Your task to perform on an android device: turn off smart reply in the gmail app Image 0: 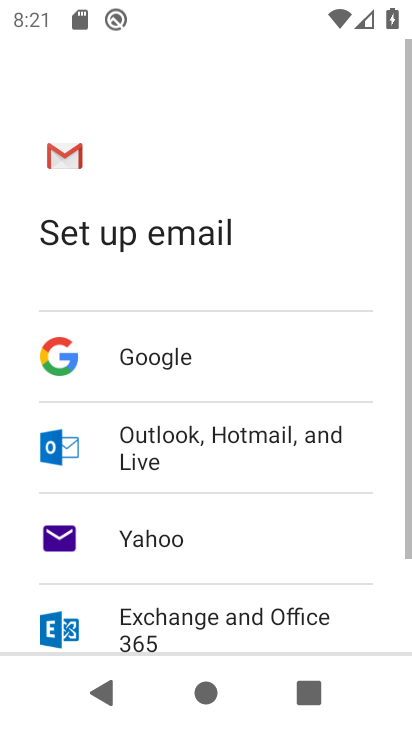
Step 0: press home button
Your task to perform on an android device: turn off smart reply in the gmail app Image 1: 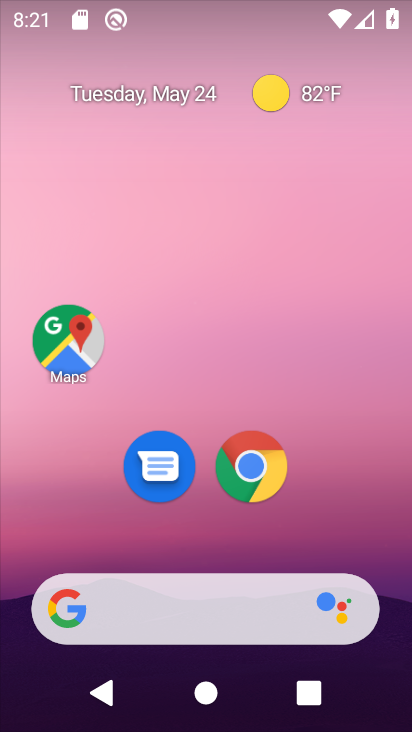
Step 1: drag from (225, 569) to (226, 157)
Your task to perform on an android device: turn off smart reply in the gmail app Image 2: 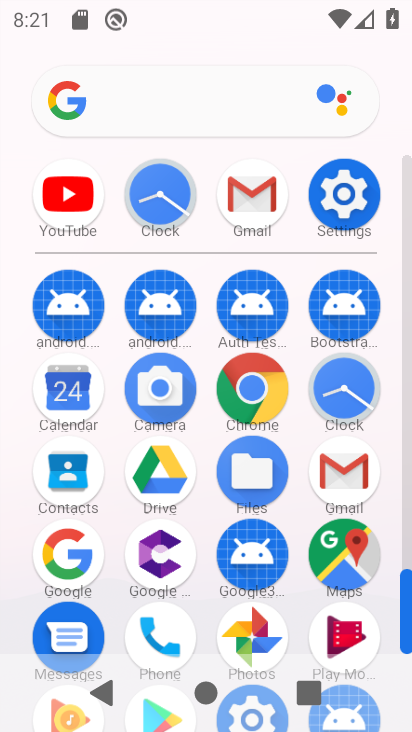
Step 2: click (255, 203)
Your task to perform on an android device: turn off smart reply in the gmail app Image 3: 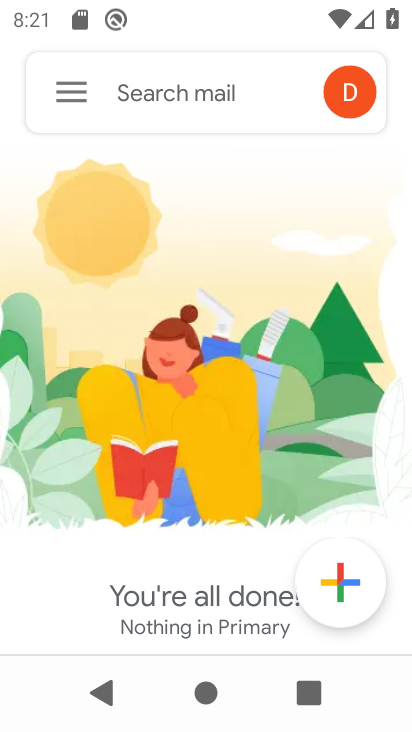
Step 3: click (72, 98)
Your task to perform on an android device: turn off smart reply in the gmail app Image 4: 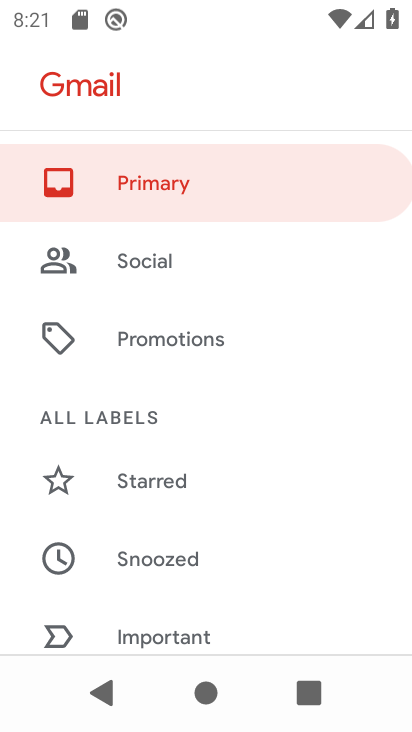
Step 4: drag from (160, 629) to (172, 245)
Your task to perform on an android device: turn off smart reply in the gmail app Image 5: 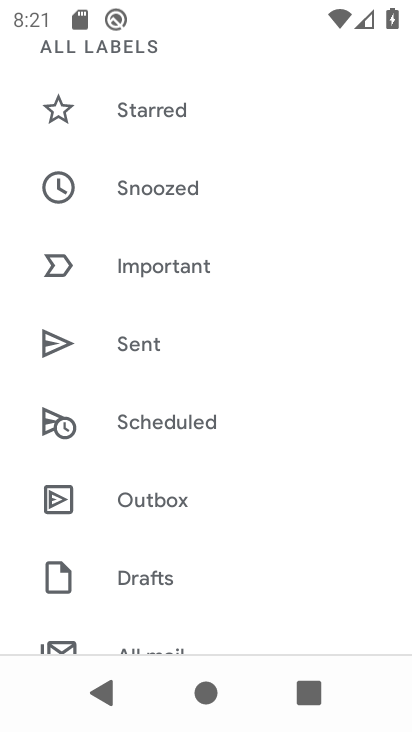
Step 5: drag from (167, 626) to (181, 318)
Your task to perform on an android device: turn off smart reply in the gmail app Image 6: 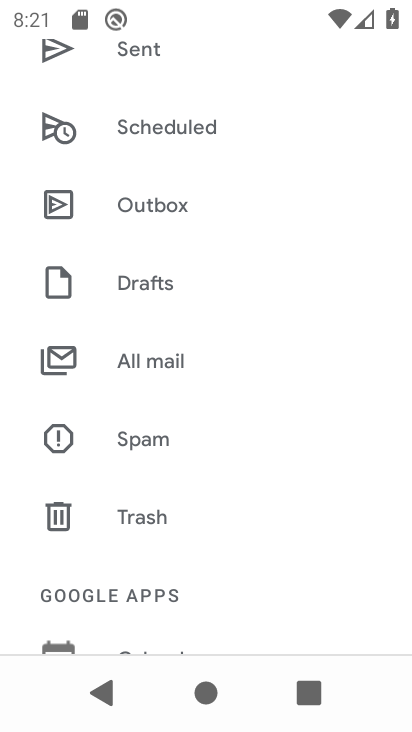
Step 6: drag from (158, 634) to (195, 289)
Your task to perform on an android device: turn off smart reply in the gmail app Image 7: 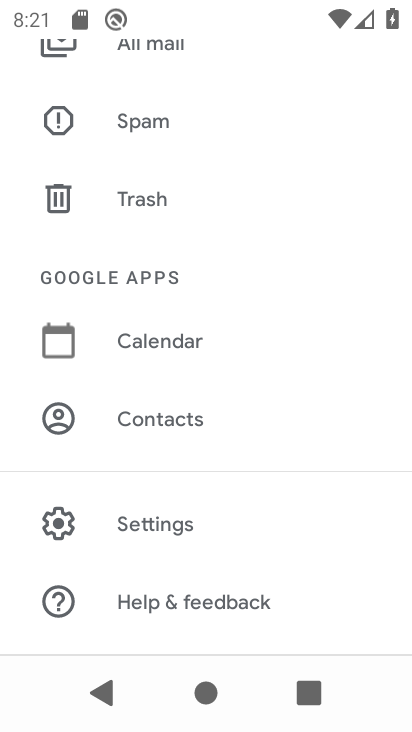
Step 7: click (162, 529)
Your task to perform on an android device: turn off smart reply in the gmail app Image 8: 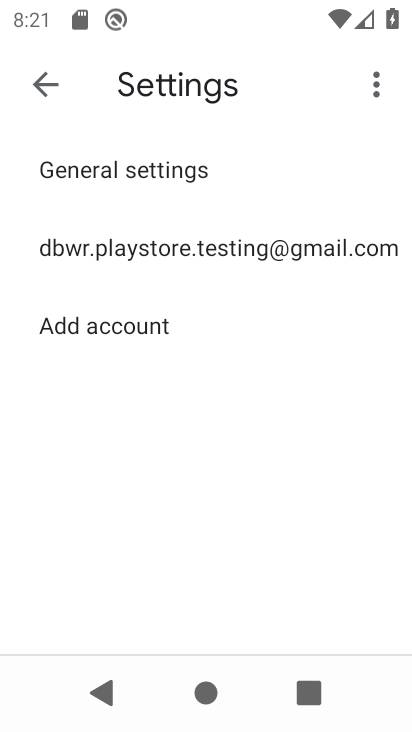
Step 8: click (129, 246)
Your task to perform on an android device: turn off smart reply in the gmail app Image 9: 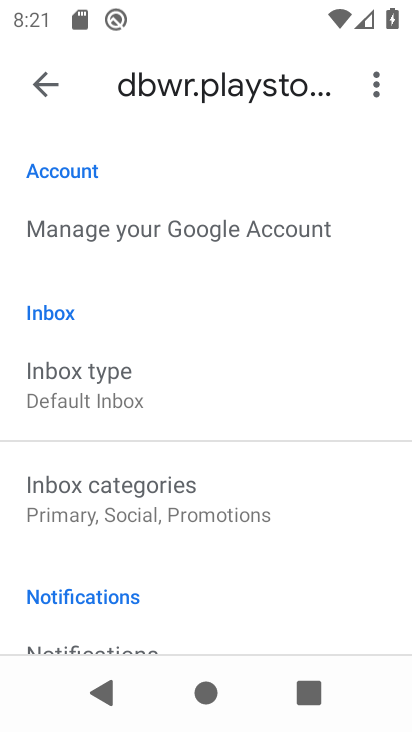
Step 9: drag from (190, 606) to (190, 290)
Your task to perform on an android device: turn off smart reply in the gmail app Image 10: 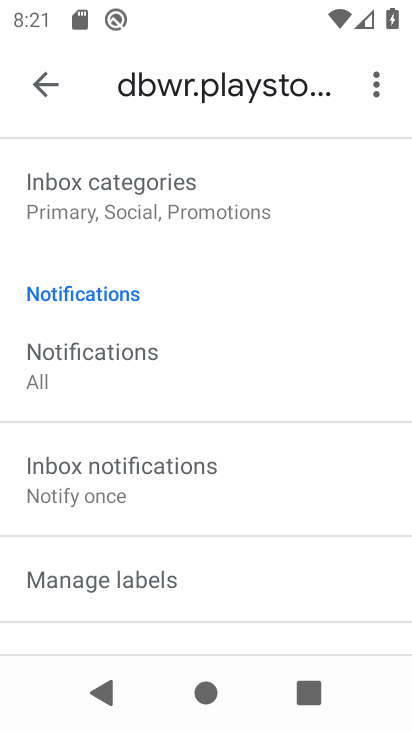
Step 10: drag from (194, 595) to (212, 314)
Your task to perform on an android device: turn off smart reply in the gmail app Image 11: 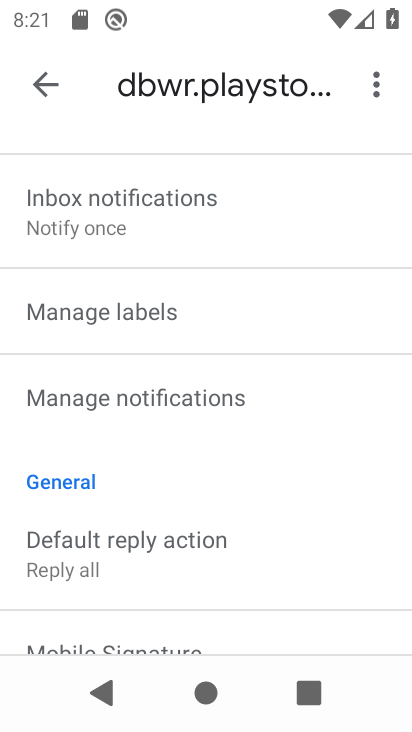
Step 11: drag from (202, 619) to (239, 269)
Your task to perform on an android device: turn off smart reply in the gmail app Image 12: 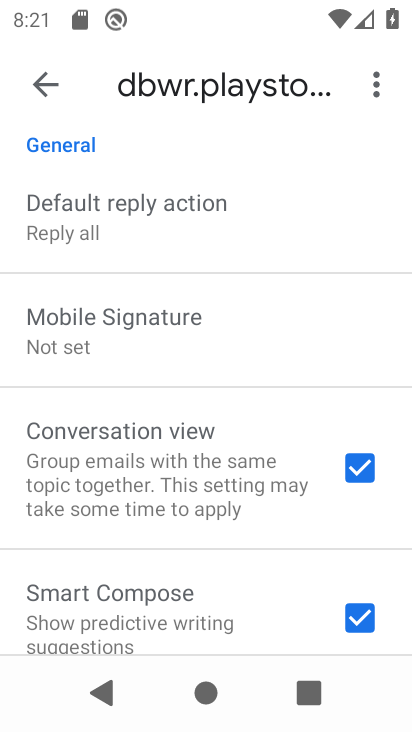
Step 12: drag from (251, 611) to (241, 258)
Your task to perform on an android device: turn off smart reply in the gmail app Image 13: 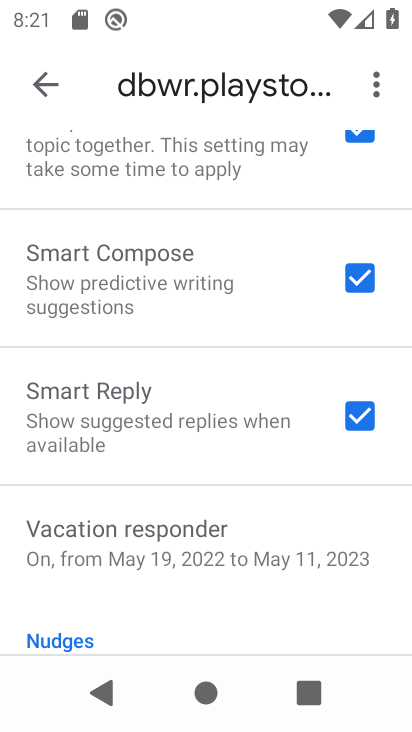
Step 13: click (365, 413)
Your task to perform on an android device: turn off smart reply in the gmail app Image 14: 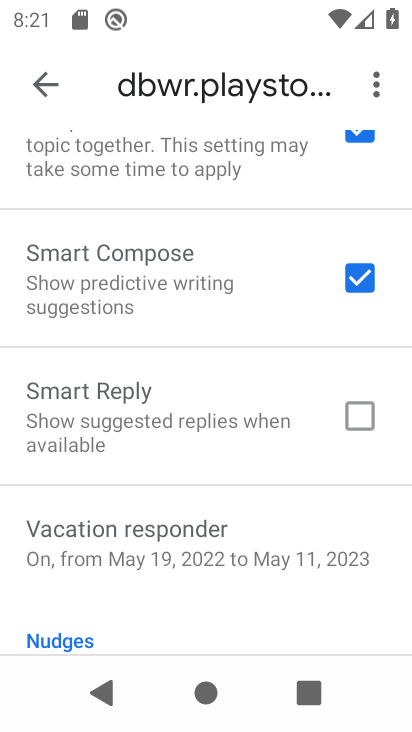
Step 14: task complete